Your task to perform on an android device: Open battery settings Image 0: 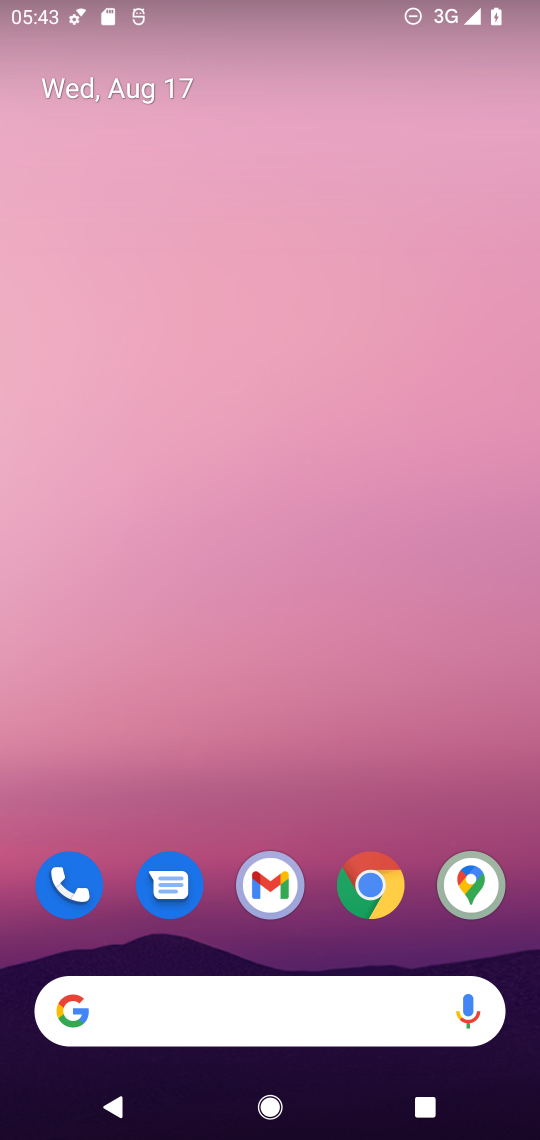
Step 0: drag from (331, 419) to (336, 112)
Your task to perform on an android device: Open battery settings Image 1: 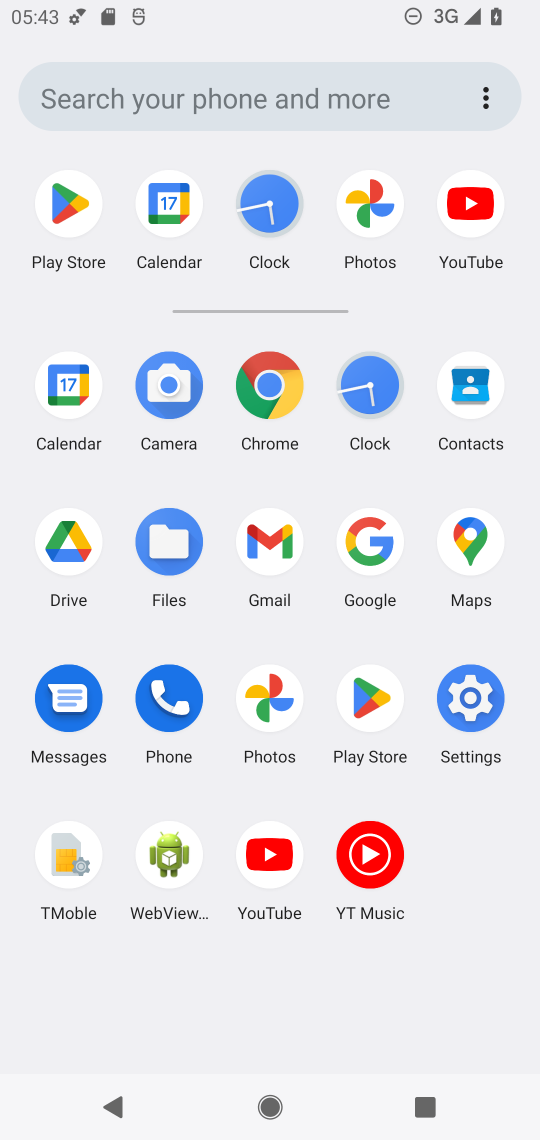
Step 1: click (488, 686)
Your task to perform on an android device: Open battery settings Image 2: 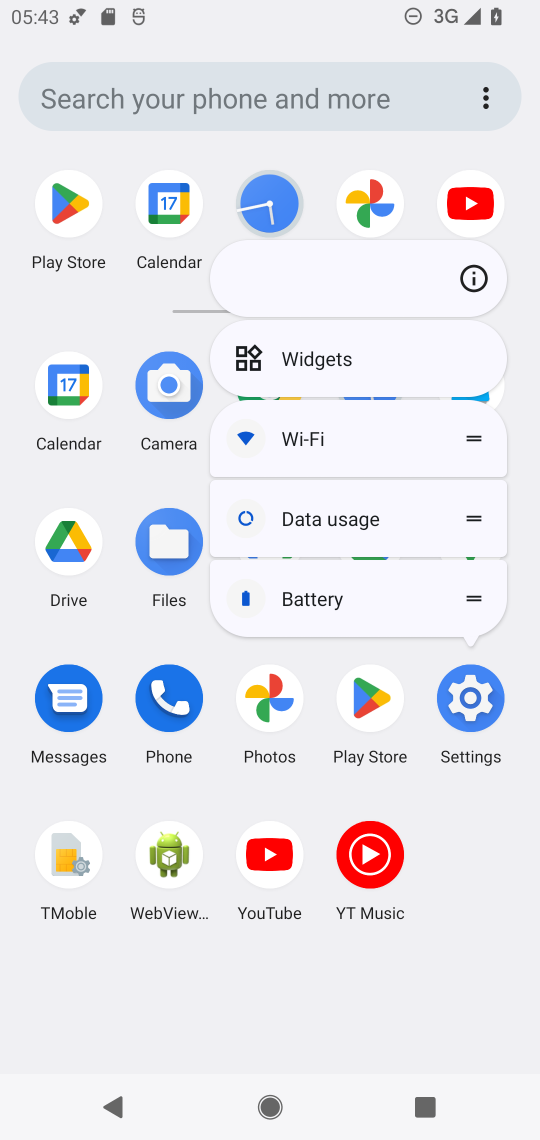
Step 2: click (488, 686)
Your task to perform on an android device: Open battery settings Image 3: 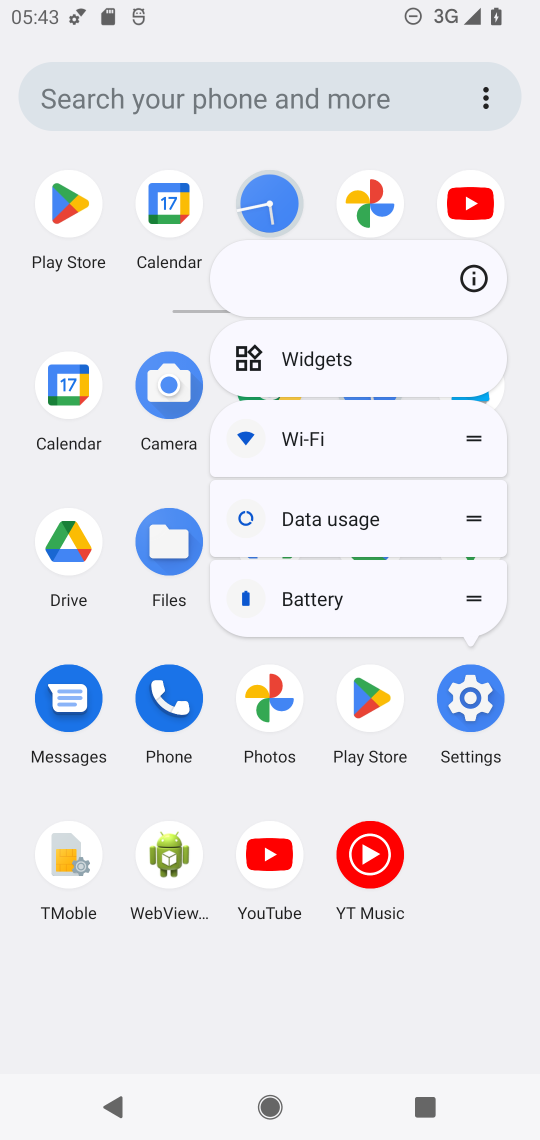
Step 3: click (479, 700)
Your task to perform on an android device: Open battery settings Image 4: 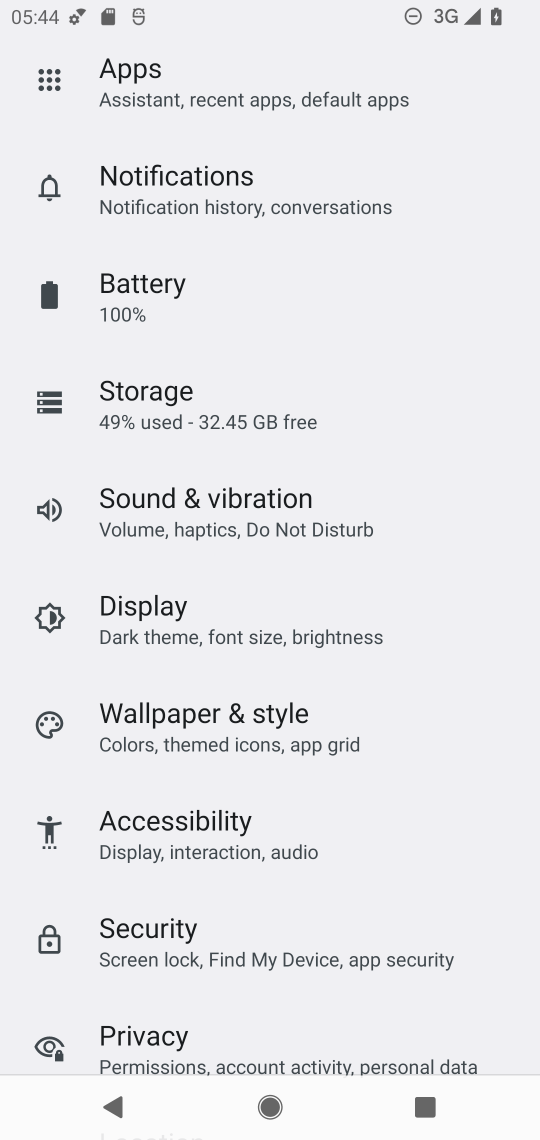
Step 4: click (144, 308)
Your task to perform on an android device: Open battery settings Image 5: 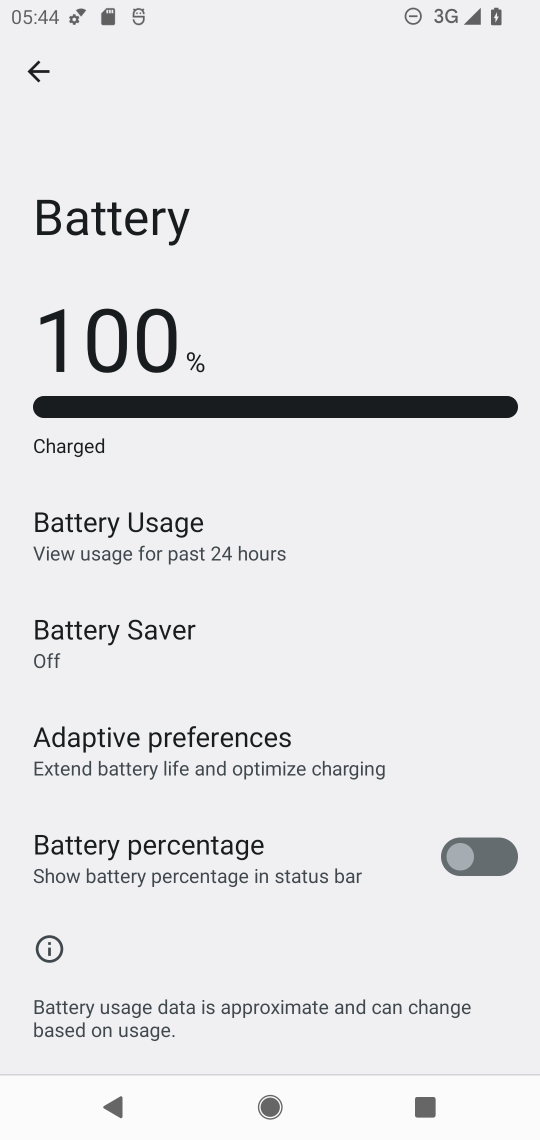
Step 5: task complete